Your task to perform on an android device: open app "YouTube Kids" (install if not already installed) Image 0: 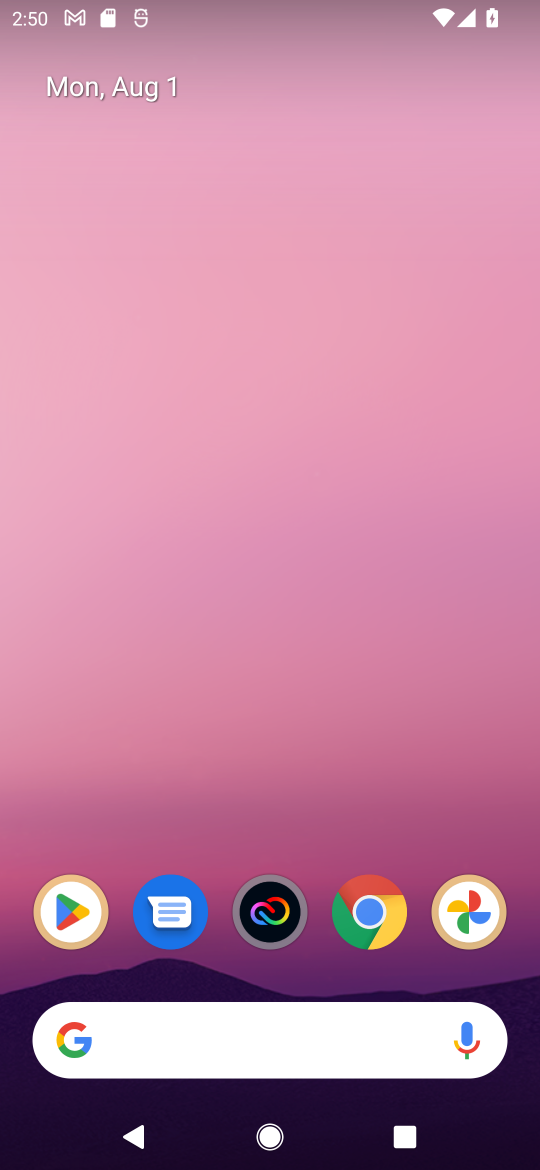
Step 0: click (70, 914)
Your task to perform on an android device: open app "YouTube Kids" (install if not already installed) Image 1: 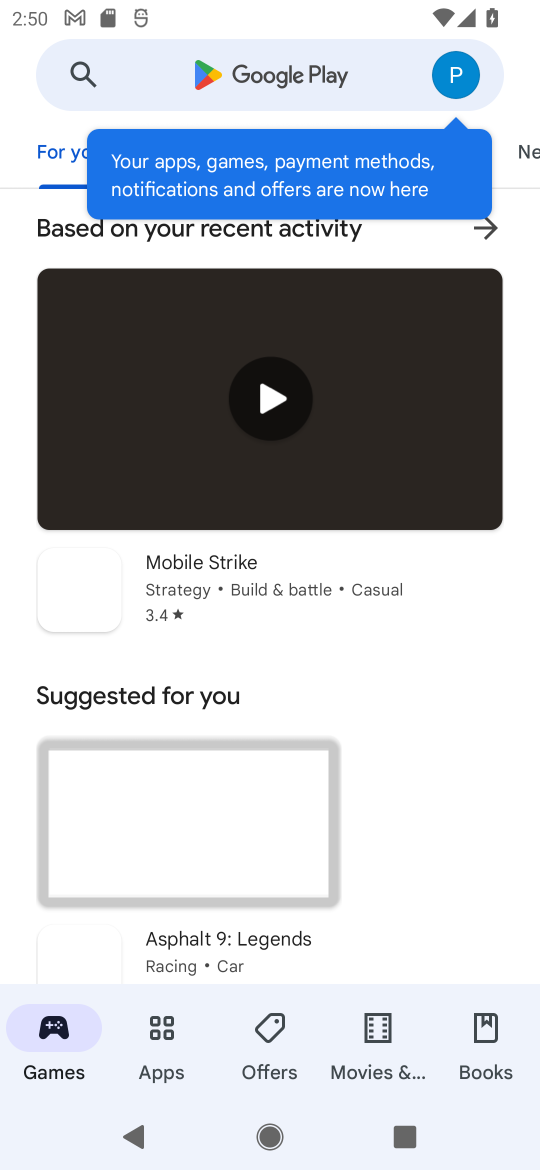
Step 1: click (172, 71)
Your task to perform on an android device: open app "YouTube Kids" (install if not already installed) Image 2: 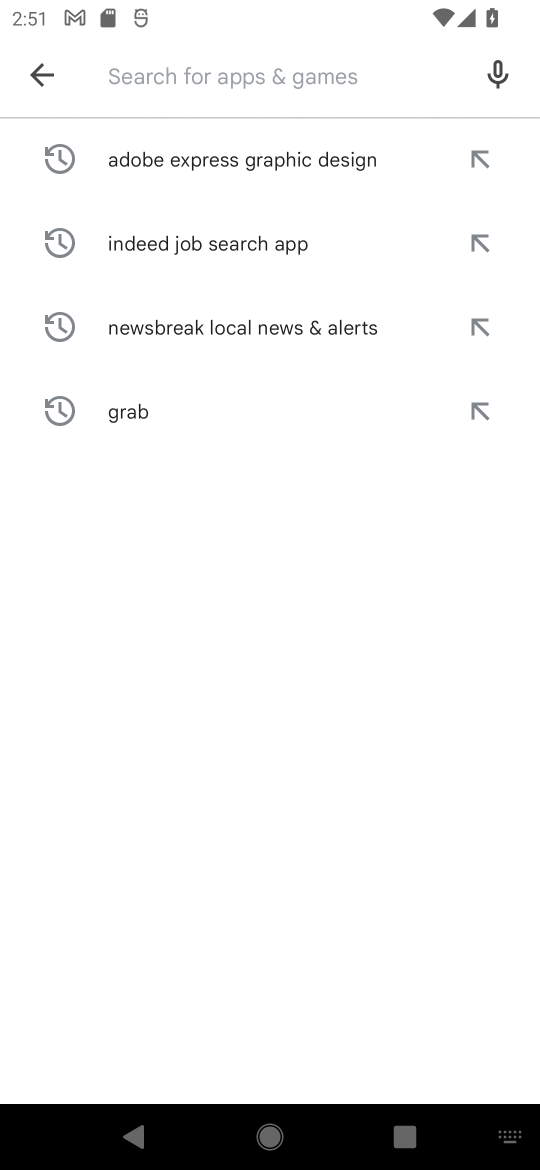
Step 2: type "YouTube Kids"
Your task to perform on an android device: open app "YouTube Kids" (install if not already installed) Image 3: 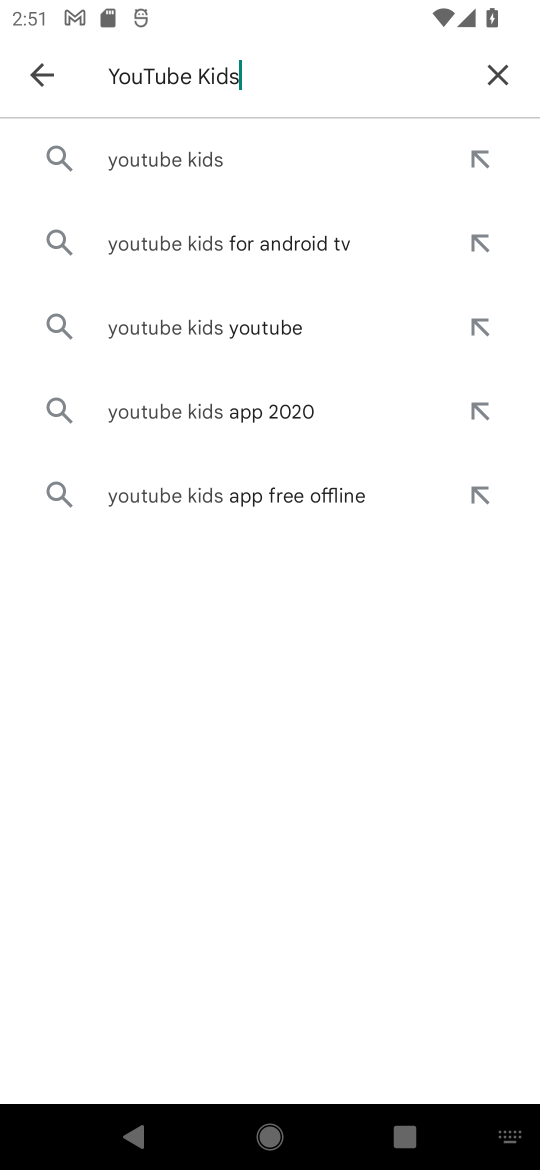
Step 3: click (199, 163)
Your task to perform on an android device: open app "YouTube Kids" (install if not already installed) Image 4: 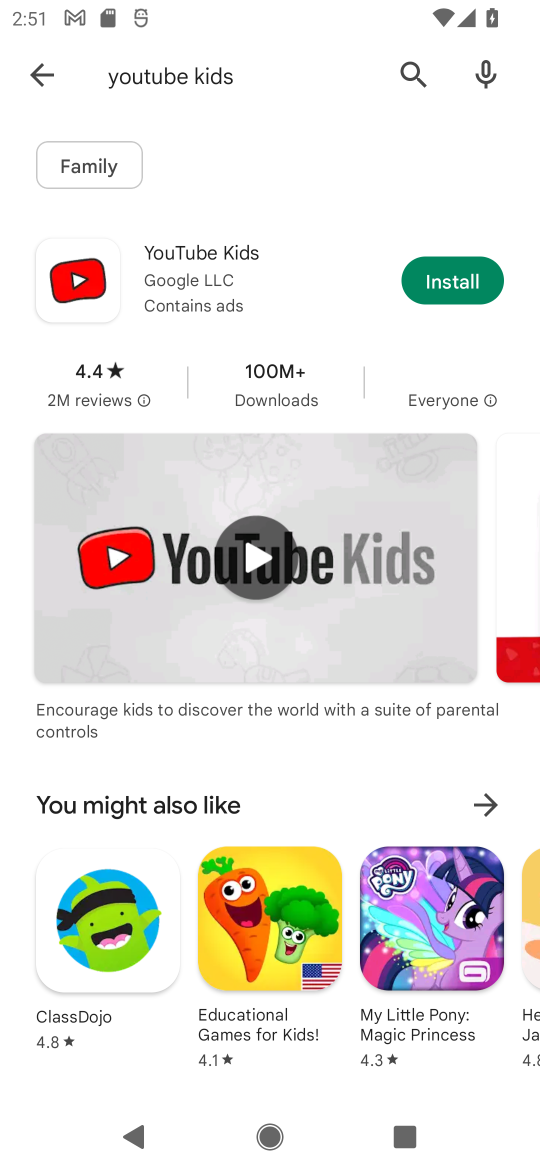
Step 4: click (449, 281)
Your task to perform on an android device: open app "YouTube Kids" (install if not already installed) Image 5: 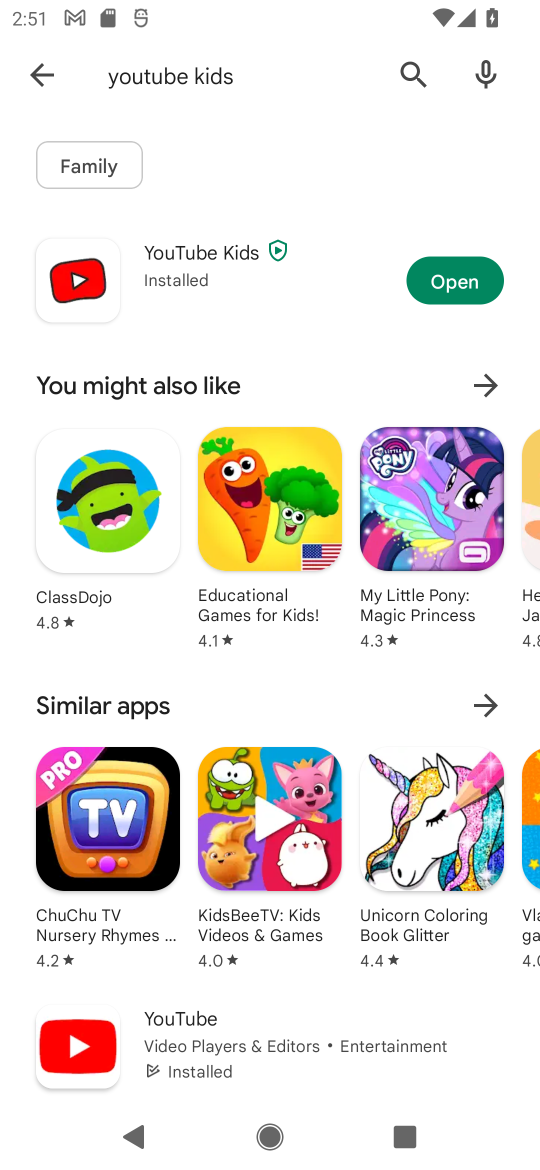
Step 5: click (444, 281)
Your task to perform on an android device: open app "YouTube Kids" (install if not already installed) Image 6: 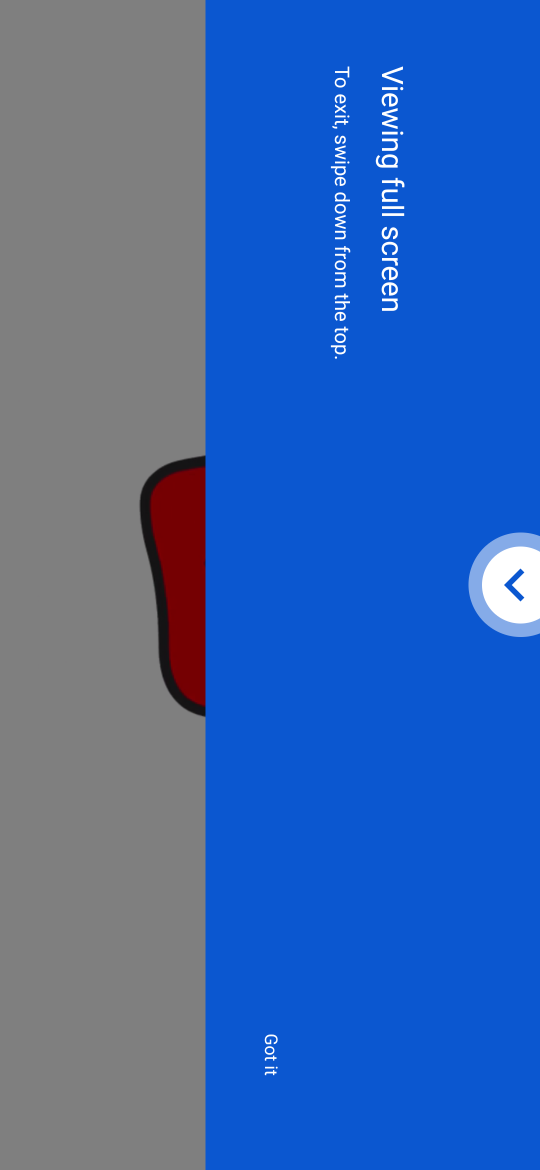
Step 6: task complete